Your task to perform on an android device: turn vacation reply on in the gmail app Image 0: 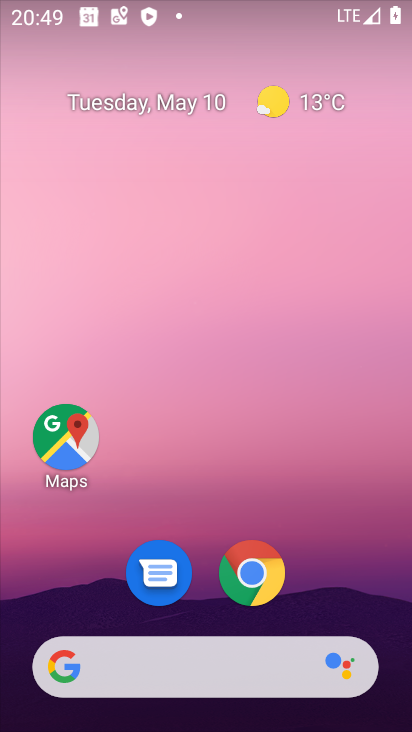
Step 0: drag from (352, 604) to (345, 11)
Your task to perform on an android device: turn vacation reply on in the gmail app Image 1: 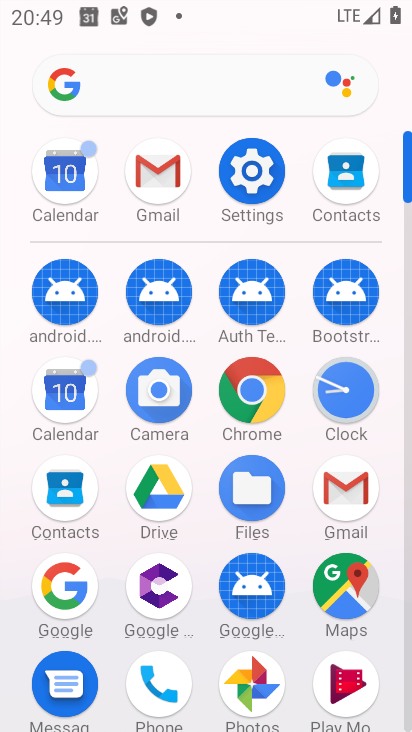
Step 1: click (164, 180)
Your task to perform on an android device: turn vacation reply on in the gmail app Image 2: 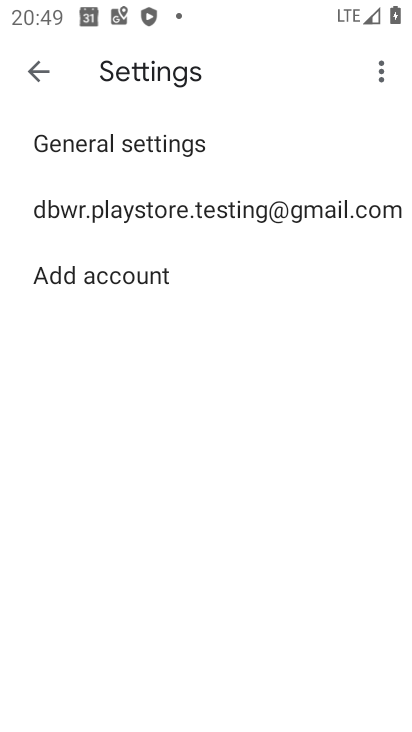
Step 2: click (133, 216)
Your task to perform on an android device: turn vacation reply on in the gmail app Image 3: 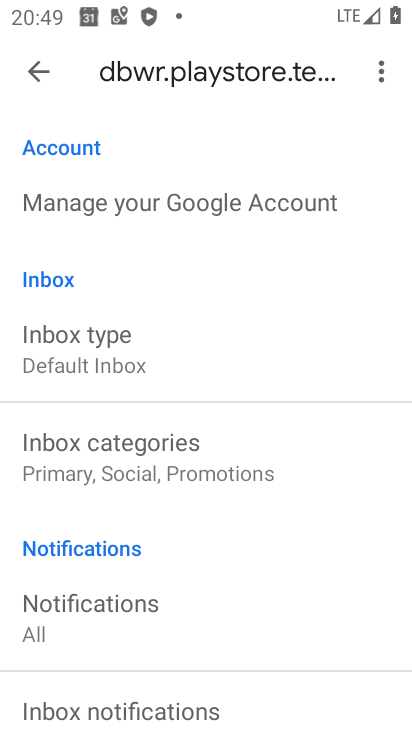
Step 3: drag from (230, 540) to (231, 145)
Your task to perform on an android device: turn vacation reply on in the gmail app Image 4: 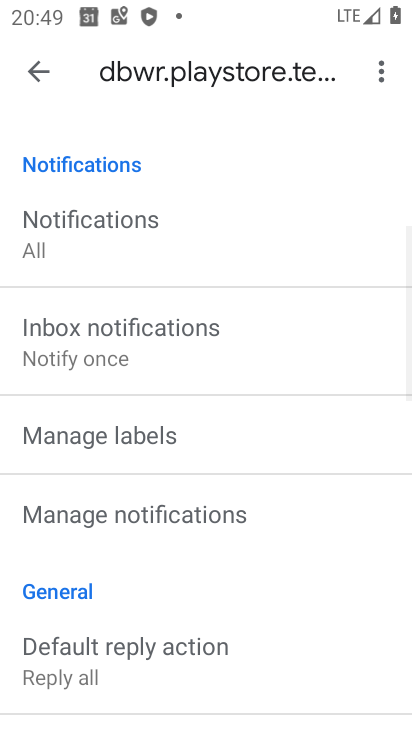
Step 4: drag from (223, 578) to (204, 125)
Your task to perform on an android device: turn vacation reply on in the gmail app Image 5: 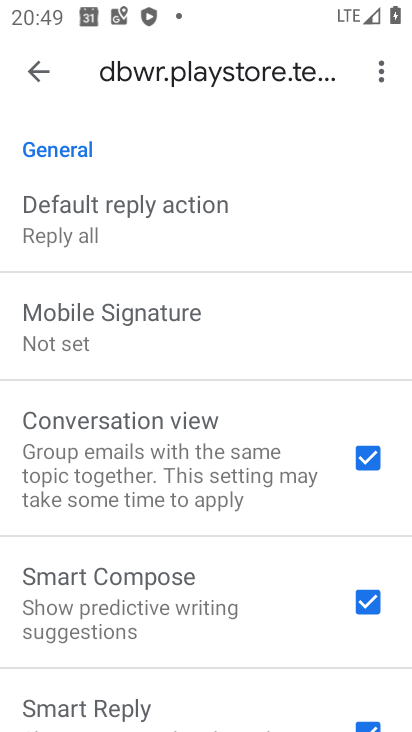
Step 5: drag from (172, 550) to (170, 184)
Your task to perform on an android device: turn vacation reply on in the gmail app Image 6: 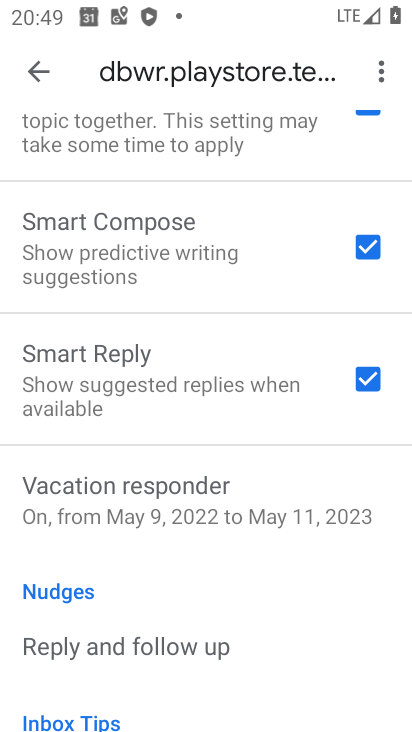
Step 6: click (85, 492)
Your task to perform on an android device: turn vacation reply on in the gmail app Image 7: 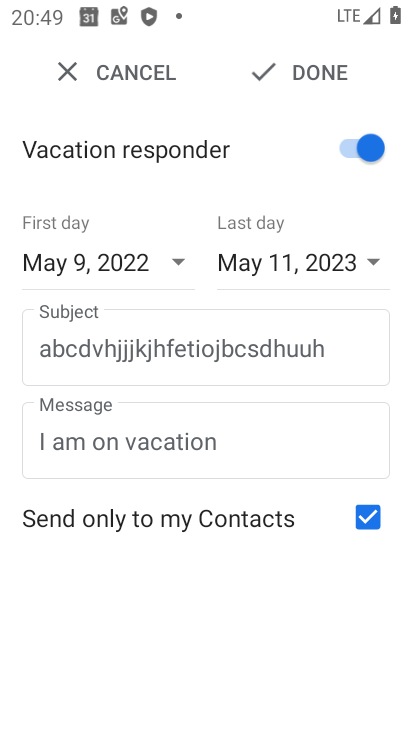
Step 7: click (319, 72)
Your task to perform on an android device: turn vacation reply on in the gmail app Image 8: 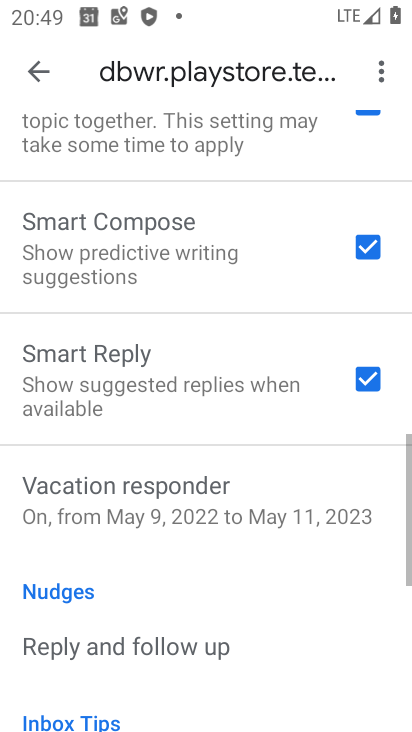
Step 8: task complete